Your task to perform on an android device: Open internet settings Image 0: 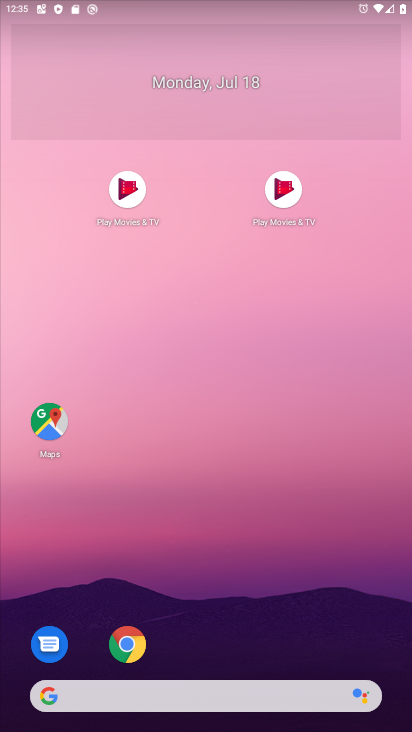
Step 0: drag from (312, 608) to (278, 93)
Your task to perform on an android device: Open internet settings Image 1: 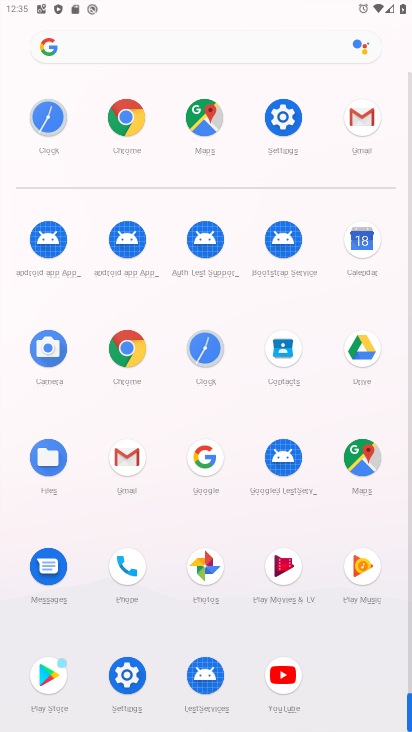
Step 1: click (287, 121)
Your task to perform on an android device: Open internet settings Image 2: 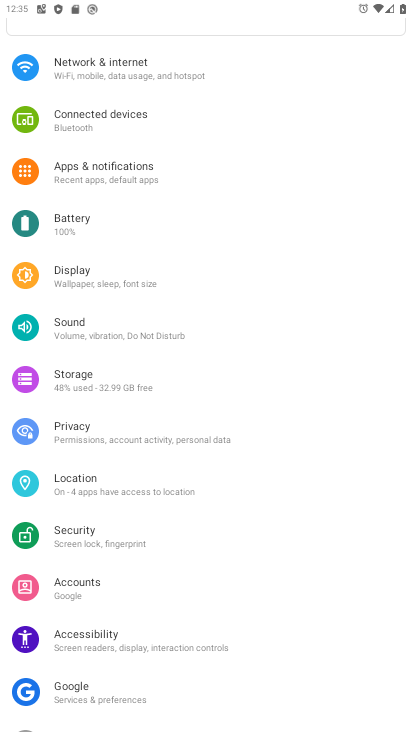
Step 2: click (126, 74)
Your task to perform on an android device: Open internet settings Image 3: 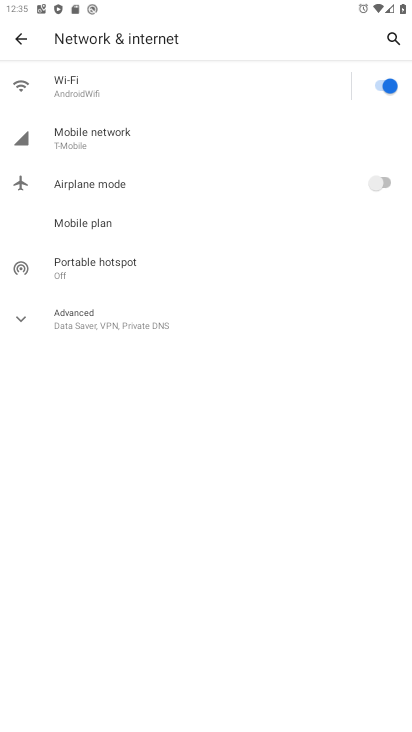
Step 3: click (78, 137)
Your task to perform on an android device: Open internet settings Image 4: 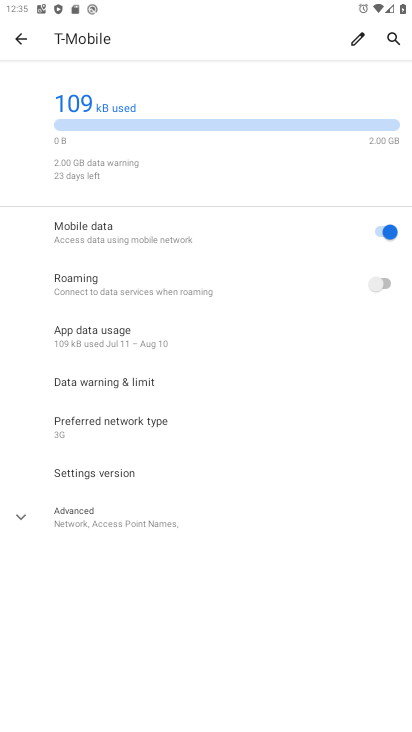
Step 4: task complete